Your task to perform on an android device: turn off translation in the chrome app Image 0: 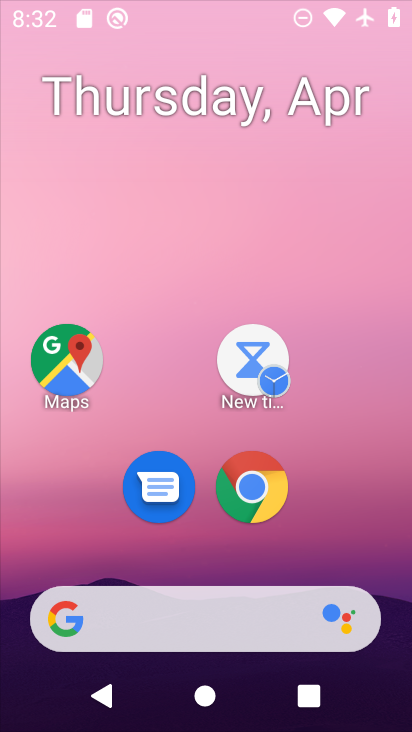
Step 0: click (328, 131)
Your task to perform on an android device: turn off translation in the chrome app Image 1: 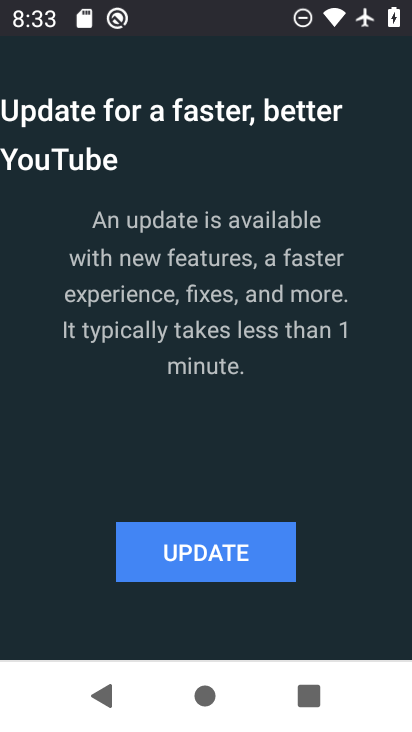
Step 1: press home button
Your task to perform on an android device: turn off translation in the chrome app Image 2: 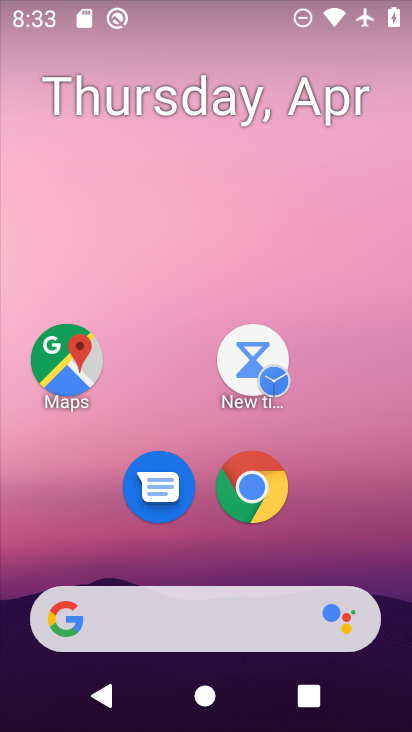
Step 2: click (242, 502)
Your task to perform on an android device: turn off translation in the chrome app Image 3: 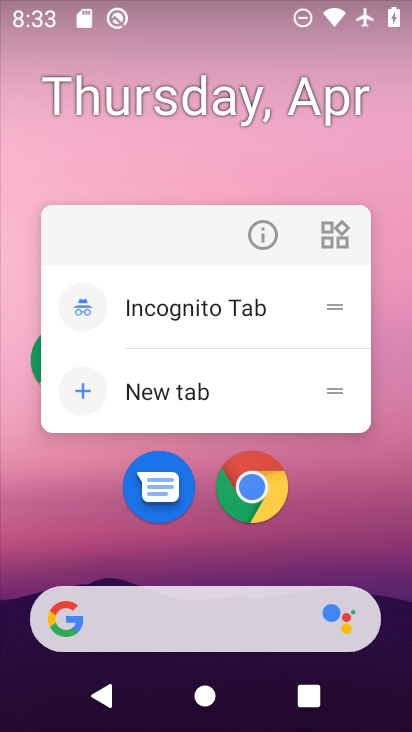
Step 3: click (242, 502)
Your task to perform on an android device: turn off translation in the chrome app Image 4: 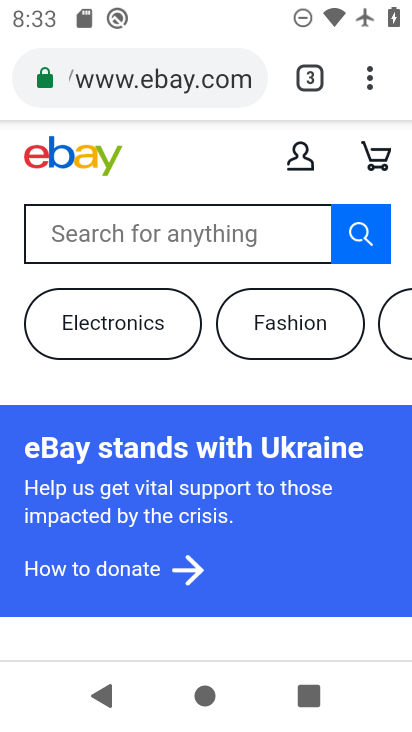
Step 4: drag from (368, 83) to (129, 548)
Your task to perform on an android device: turn off translation in the chrome app Image 5: 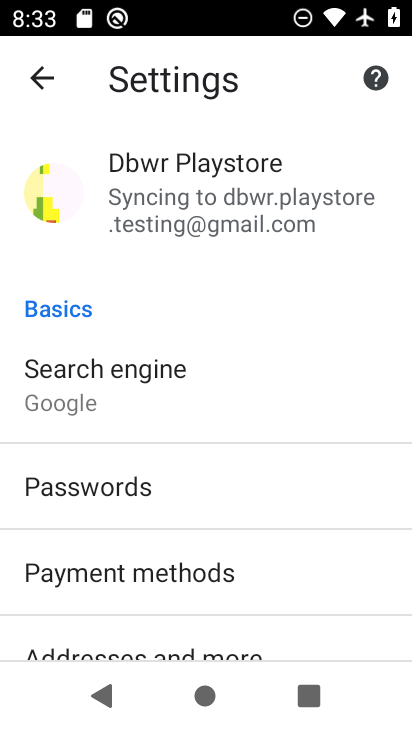
Step 5: drag from (288, 588) to (210, 144)
Your task to perform on an android device: turn off translation in the chrome app Image 6: 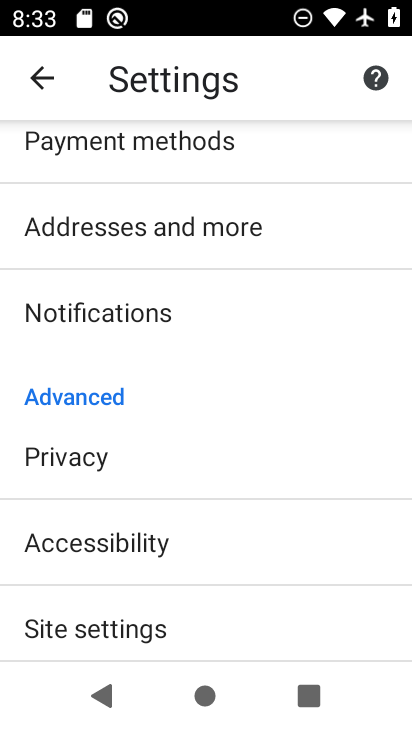
Step 6: drag from (183, 508) to (192, 274)
Your task to perform on an android device: turn off translation in the chrome app Image 7: 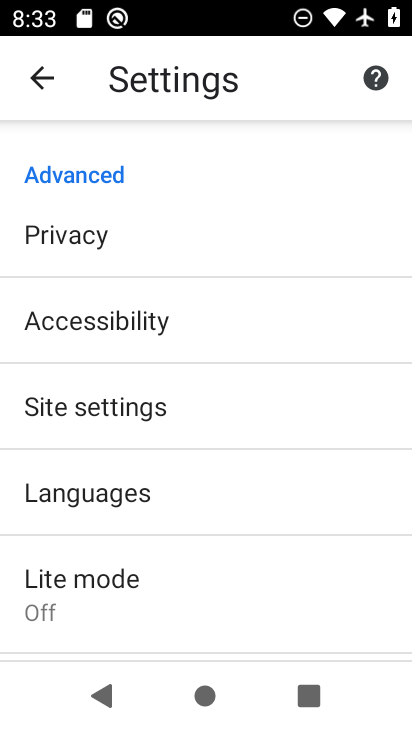
Step 7: click (93, 489)
Your task to perform on an android device: turn off translation in the chrome app Image 8: 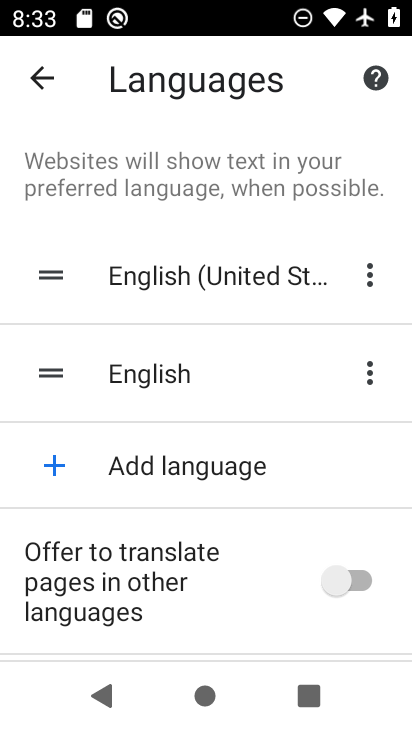
Step 8: task complete